Your task to perform on an android device: turn on priority inbox in the gmail app Image 0: 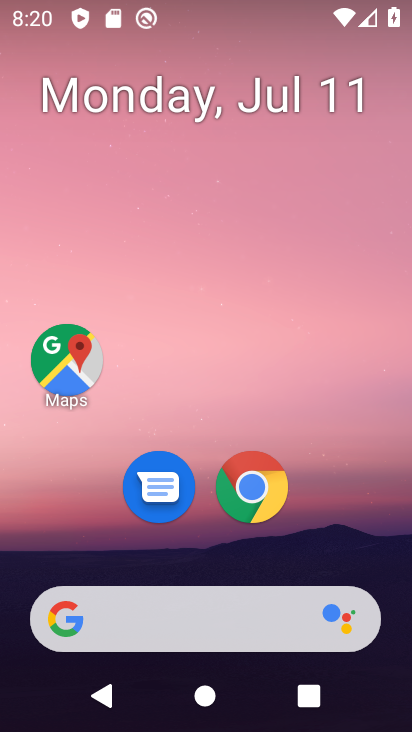
Step 0: drag from (192, 584) to (261, 0)
Your task to perform on an android device: turn on priority inbox in the gmail app Image 1: 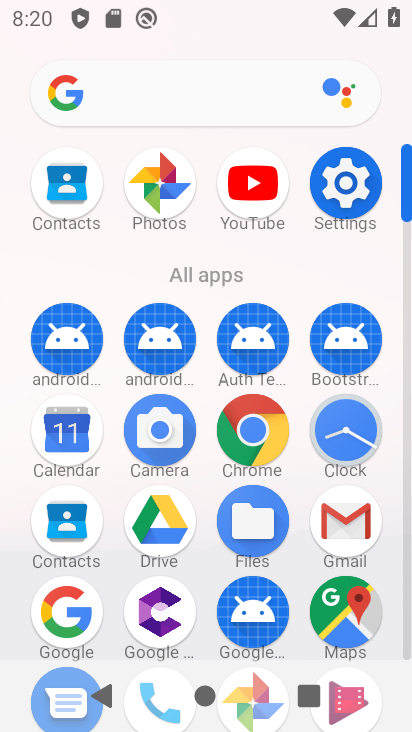
Step 1: click (349, 521)
Your task to perform on an android device: turn on priority inbox in the gmail app Image 2: 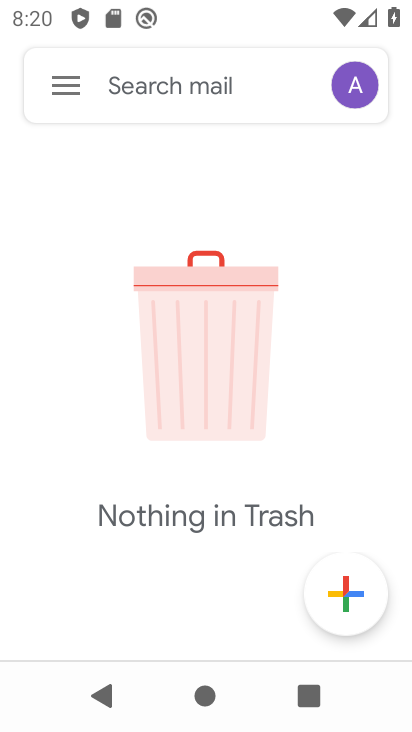
Step 2: click (77, 90)
Your task to perform on an android device: turn on priority inbox in the gmail app Image 3: 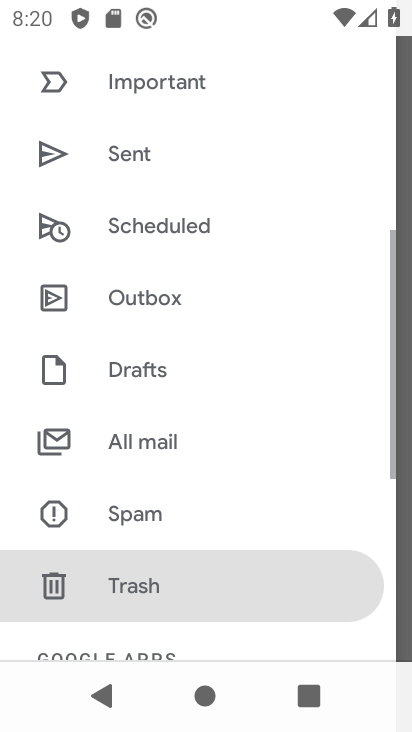
Step 3: drag from (159, 585) to (244, 82)
Your task to perform on an android device: turn on priority inbox in the gmail app Image 4: 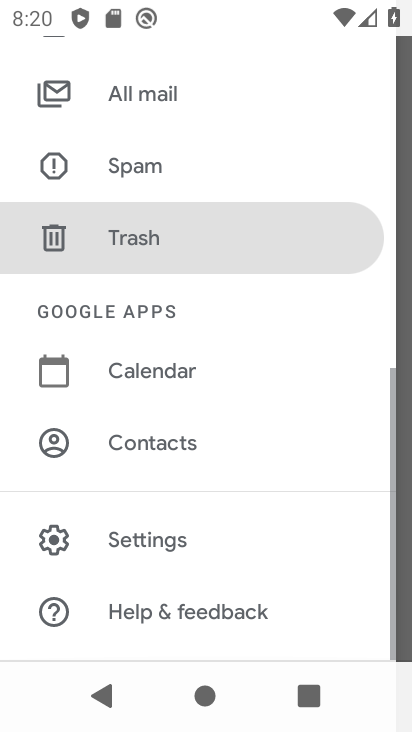
Step 4: click (160, 538)
Your task to perform on an android device: turn on priority inbox in the gmail app Image 5: 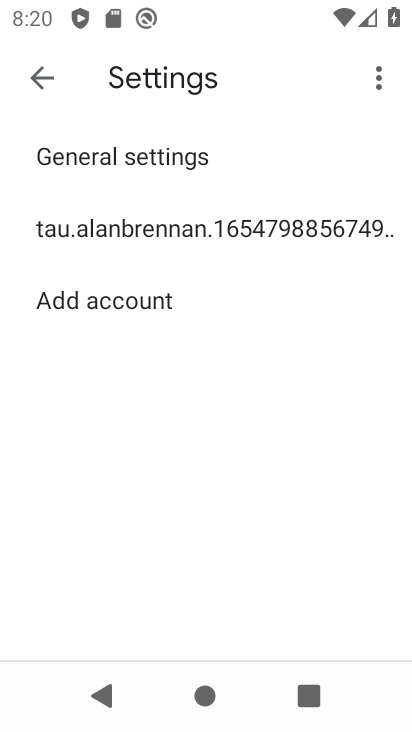
Step 5: click (133, 233)
Your task to perform on an android device: turn on priority inbox in the gmail app Image 6: 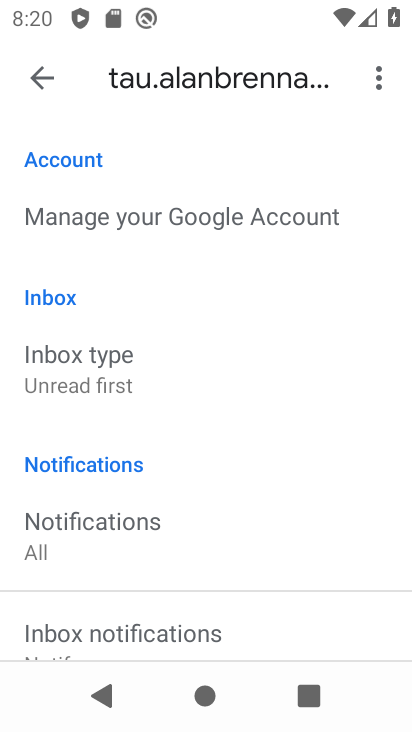
Step 6: drag from (90, 644) to (245, 15)
Your task to perform on an android device: turn on priority inbox in the gmail app Image 7: 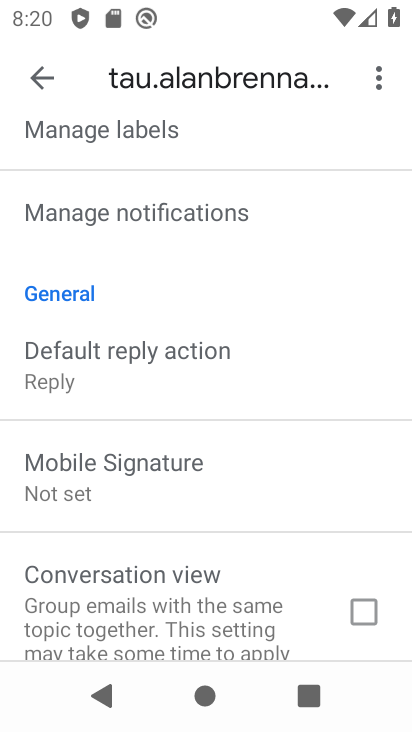
Step 7: drag from (174, 217) to (141, 693)
Your task to perform on an android device: turn on priority inbox in the gmail app Image 8: 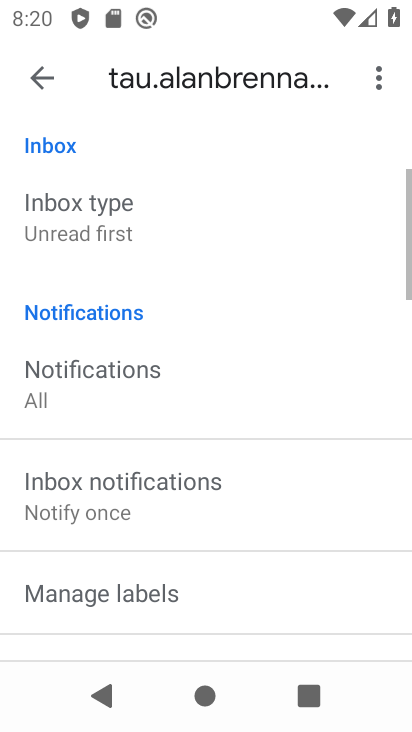
Step 8: click (76, 216)
Your task to perform on an android device: turn on priority inbox in the gmail app Image 9: 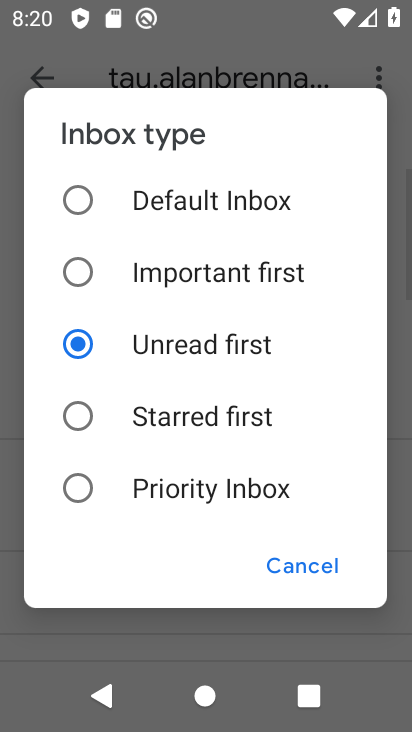
Step 9: click (79, 481)
Your task to perform on an android device: turn on priority inbox in the gmail app Image 10: 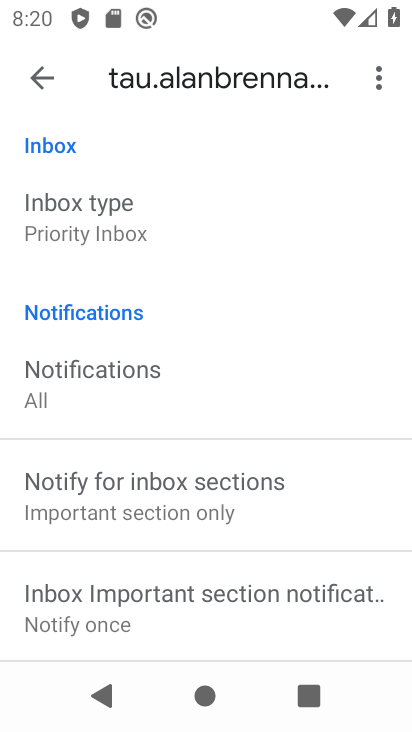
Step 10: task complete